Your task to perform on an android device: Open Wikipedia Image 0: 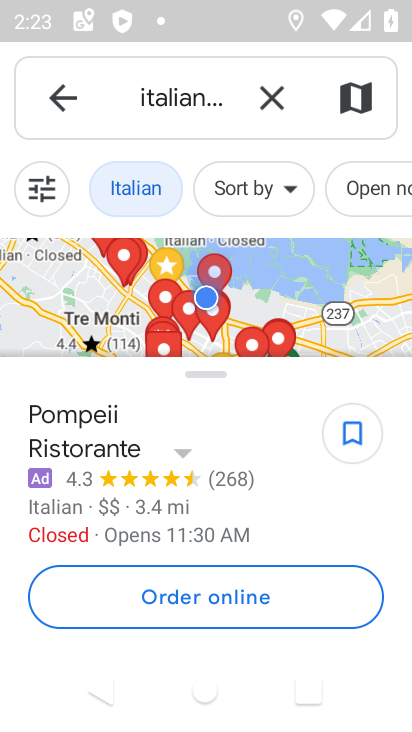
Step 0: press home button
Your task to perform on an android device: Open Wikipedia Image 1: 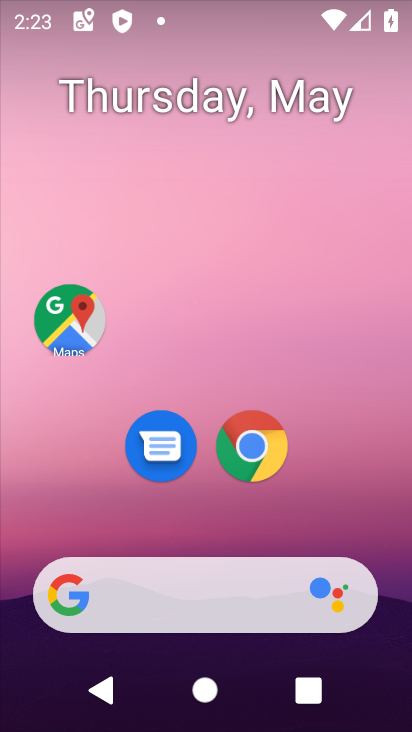
Step 1: click (245, 445)
Your task to perform on an android device: Open Wikipedia Image 2: 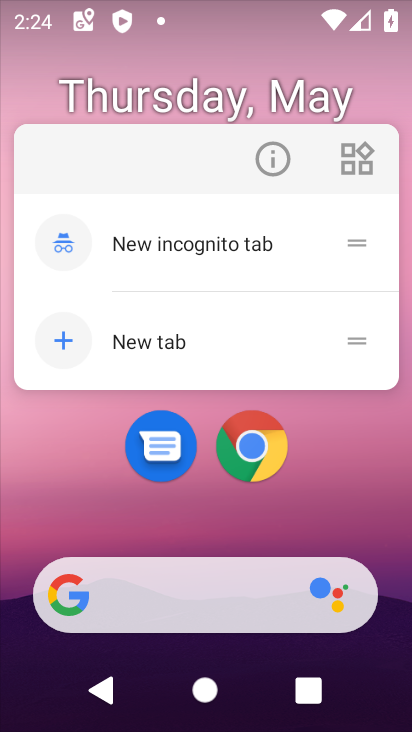
Step 2: click (254, 437)
Your task to perform on an android device: Open Wikipedia Image 3: 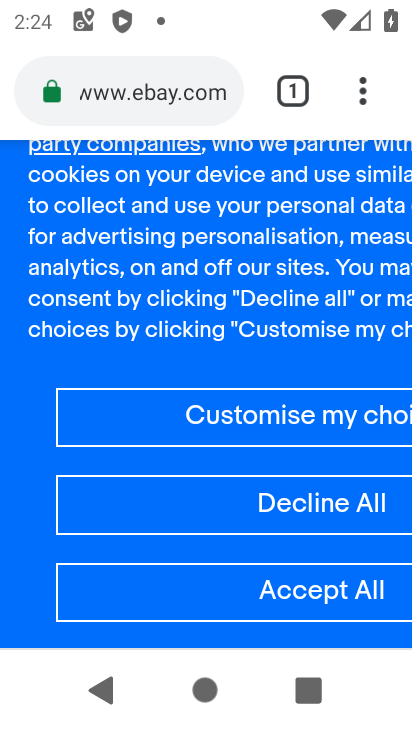
Step 3: click (186, 92)
Your task to perform on an android device: Open Wikipedia Image 4: 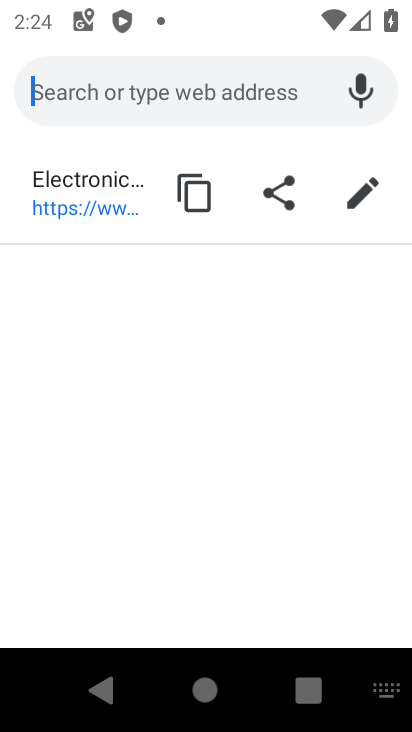
Step 4: type "wikipedia"
Your task to perform on an android device: Open Wikipedia Image 5: 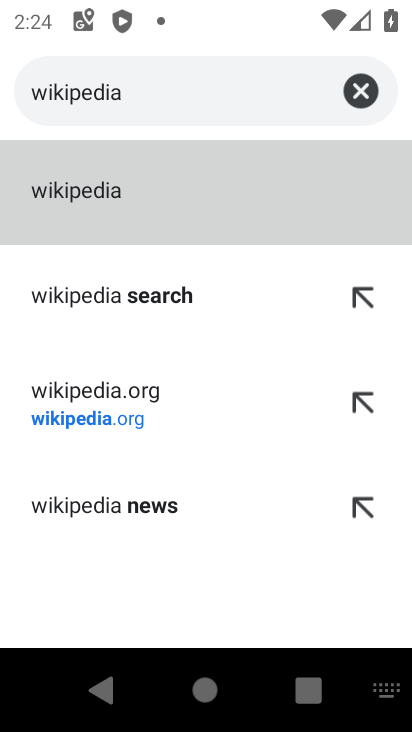
Step 5: click (77, 208)
Your task to perform on an android device: Open Wikipedia Image 6: 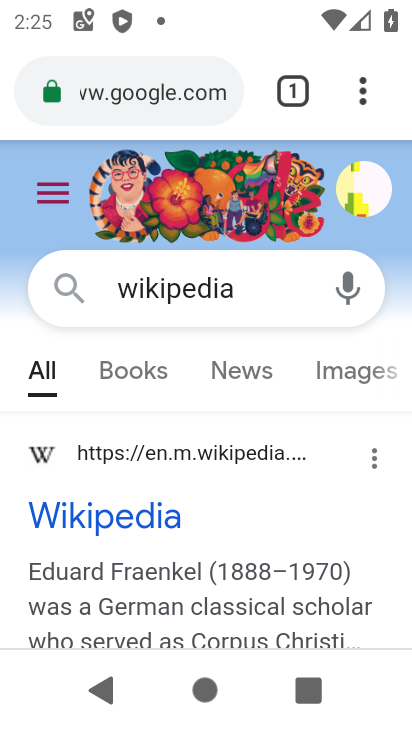
Step 6: click (134, 501)
Your task to perform on an android device: Open Wikipedia Image 7: 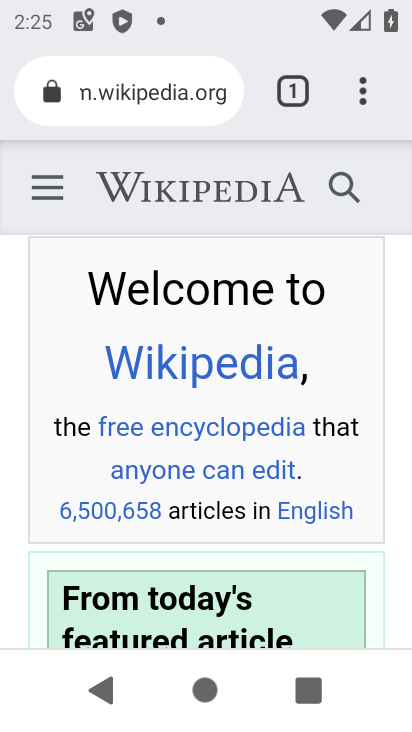
Step 7: task complete